Your task to perform on an android device: open app "The Home Depot" (install if not already installed) Image 0: 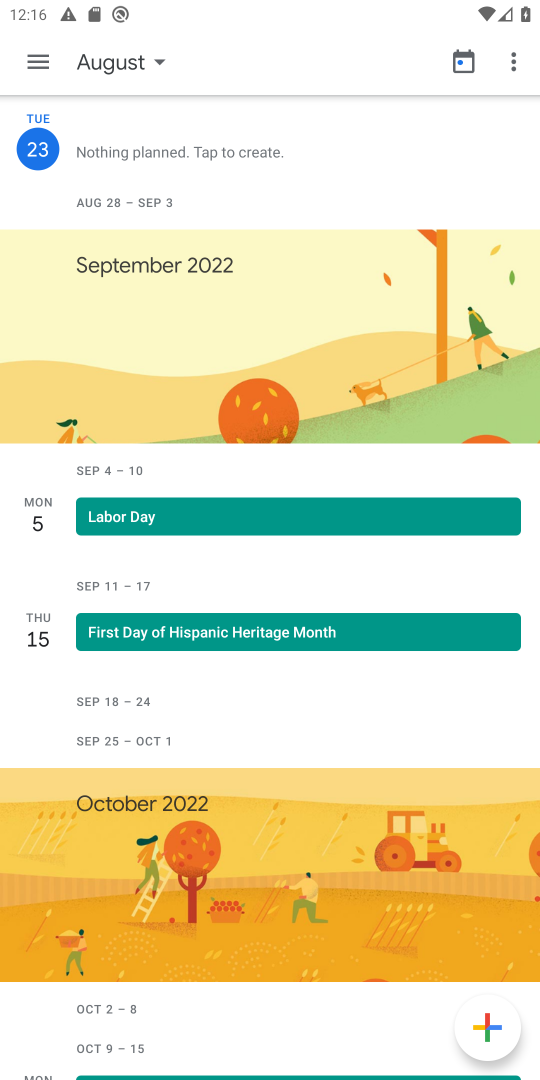
Step 0: press home button
Your task to perform on an android device: open app "The Home Depot" (install if not already installed) Image 1: 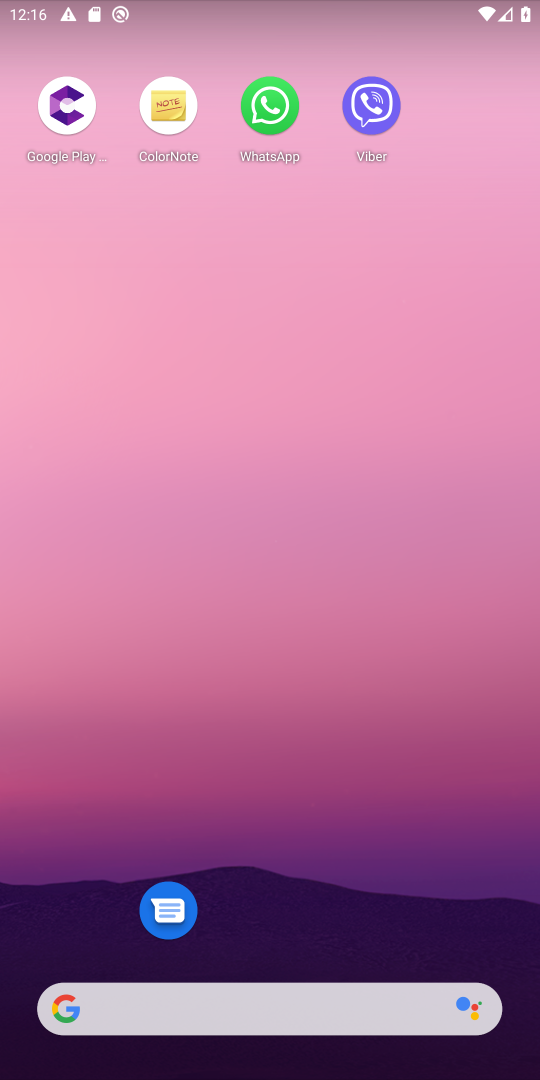
Step 1: drag from (170, 927) to (182, 41)
Your task to perform on an android device: open app "The Home Depot" (install if not already installed) Image 2: 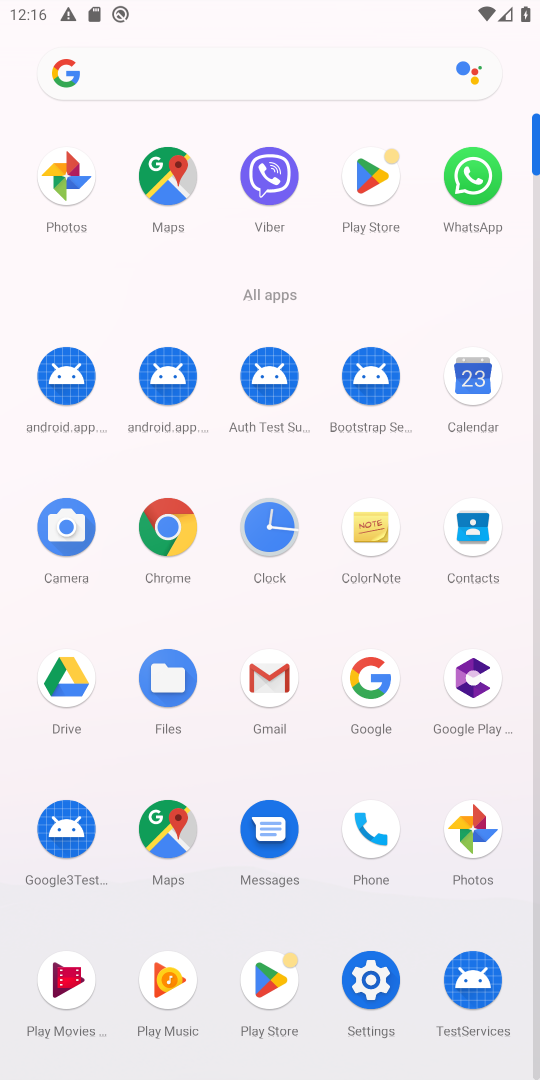
Step 2: click (360, 191)
Your task to perform on an android device: open app "The Home Depot" (install if not already installed) Image 3: 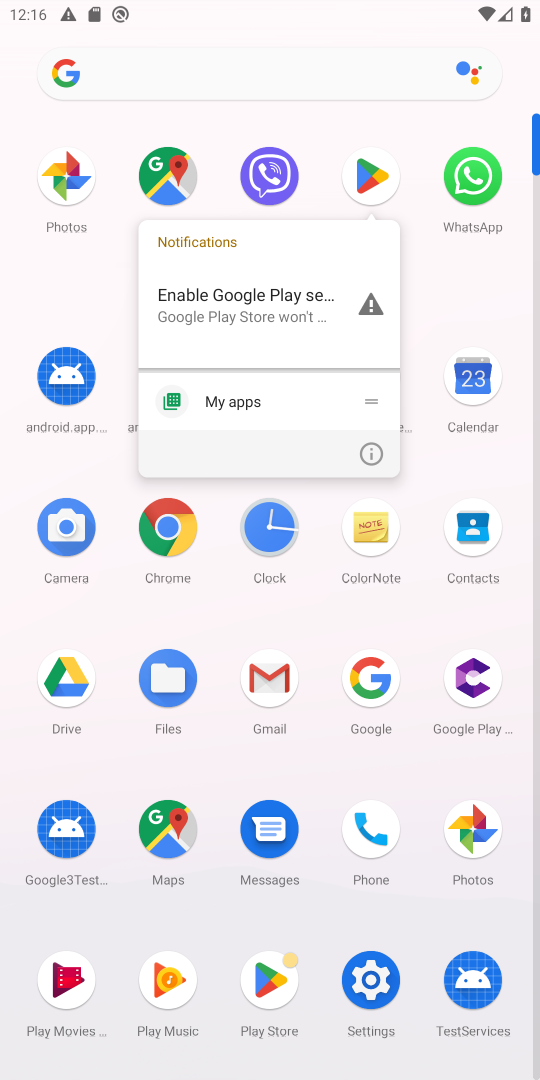
Step 3: click (360, 191)
Your task to perform on an android device: open app "The Home Depot" (install if not already installed) Image 4: 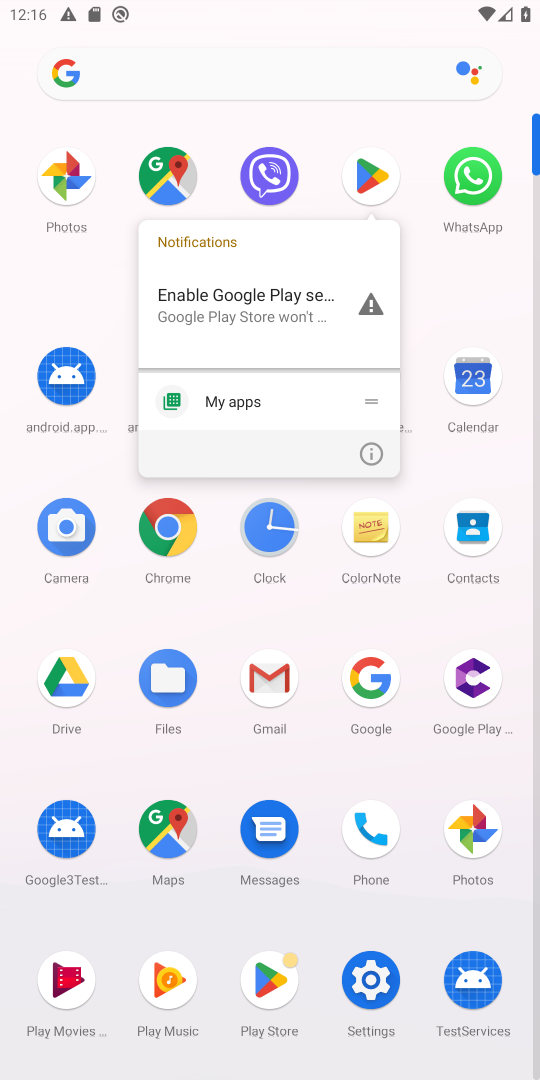
Step 4: click (376, 174)
Your task to perform on an android device: open app "The Home Depot" (install if not already installed) Image 5: 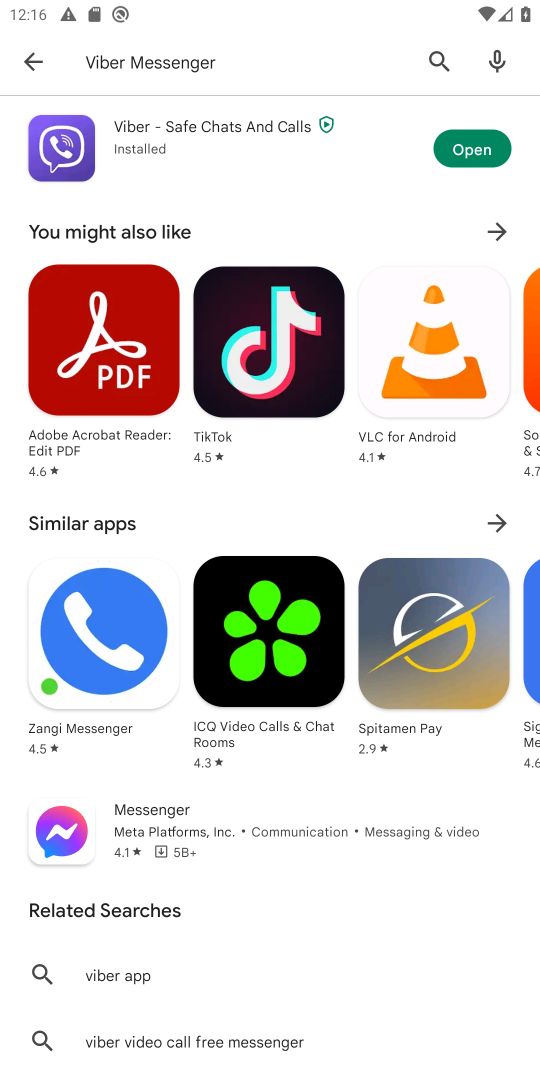
Step 5: press back button
Your task to perform on an android device: open app "The Home Depot" (install if not already installed) Image 6: 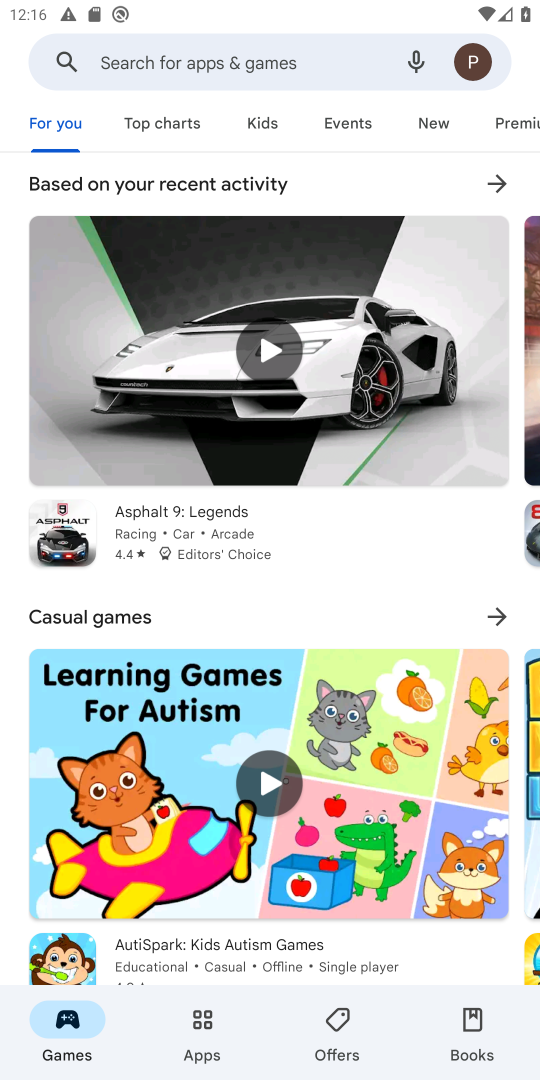
Step 6: click (224, 72)
Your task to perform on an android device: open app "The Home Depot" (install if not already installed) Image 7: 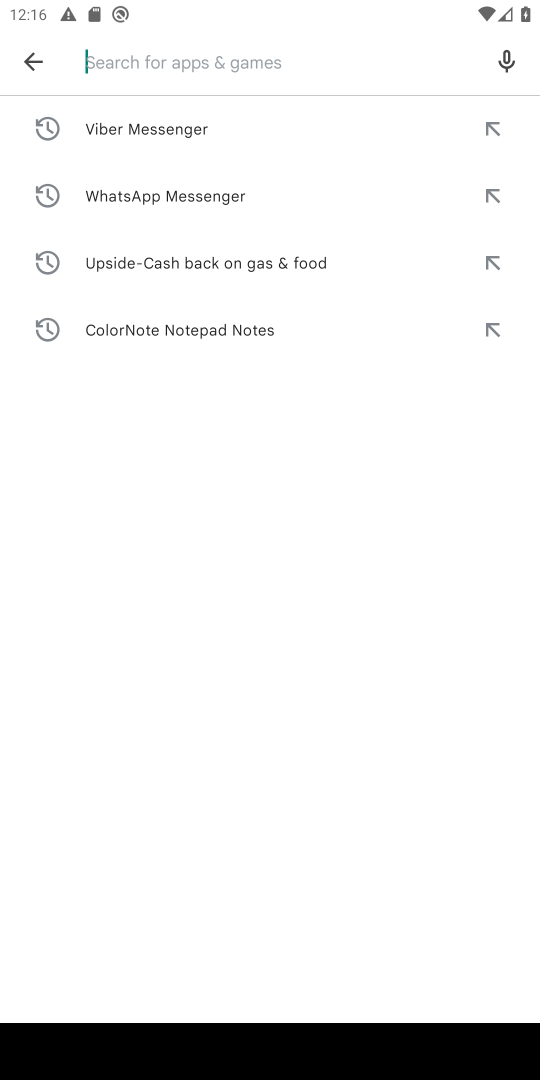
Step 7: type "The Home Depot"
Your task to perform on an android device: open app "The Home Depot" (install if not already installed) Image 8: 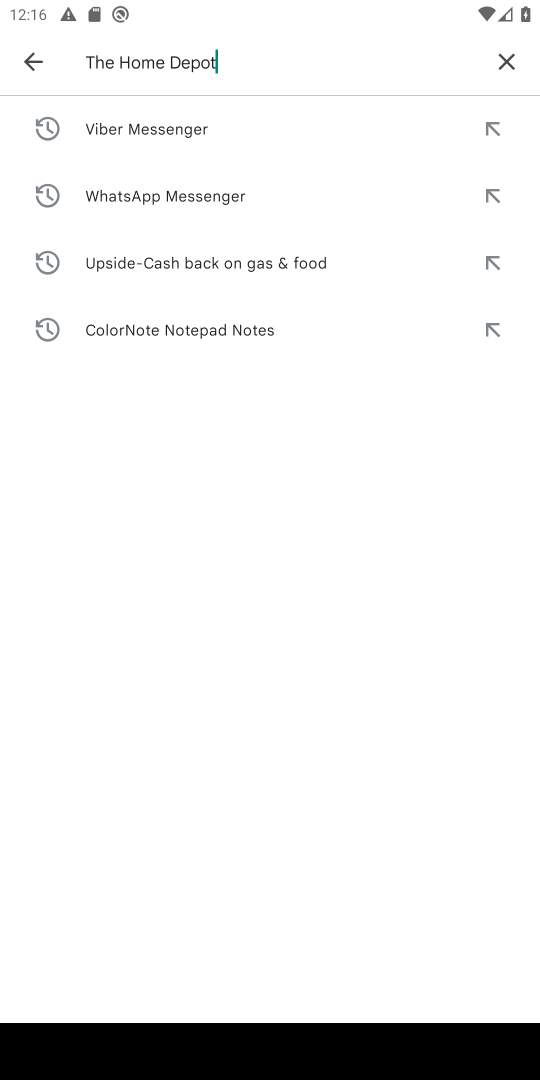
Step 8: press enter
Your task to perform on an android device: open app "The Home Depot" (install if not already installed) Image 9: 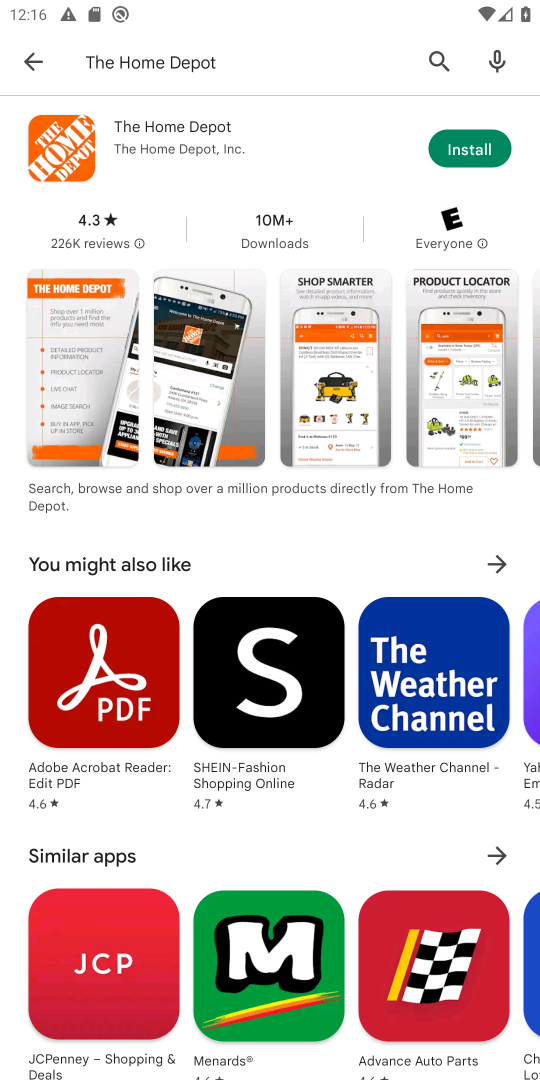
Step 9: click (462, 155)
Your task to perform on an android device: open app "The Home Depot" (install if not already installed) Image 10: 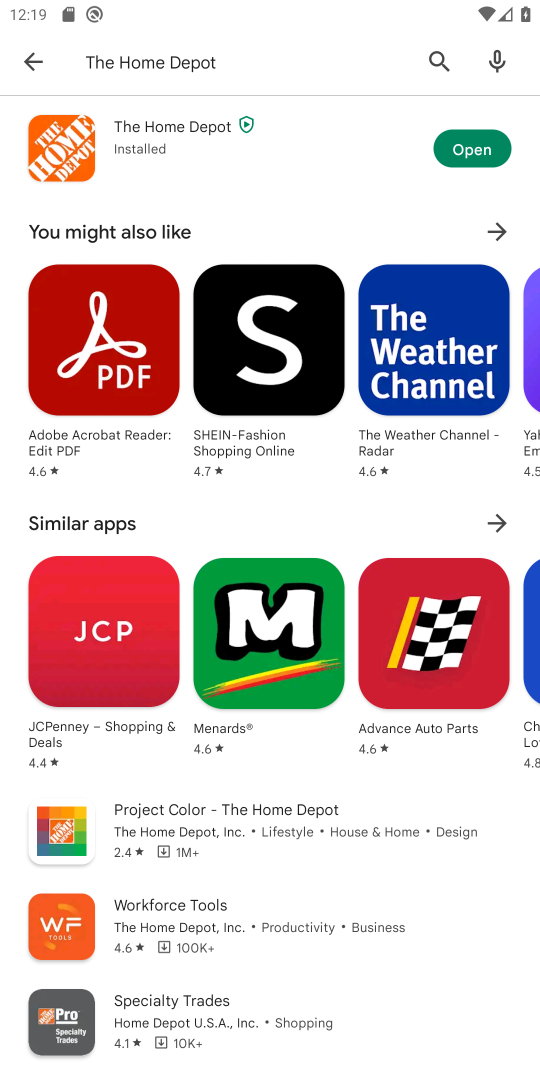
Step 10: click (478, 154)
Your task to perform on an android device: open app "The Home Depot" (install if not already installed) Image 11: 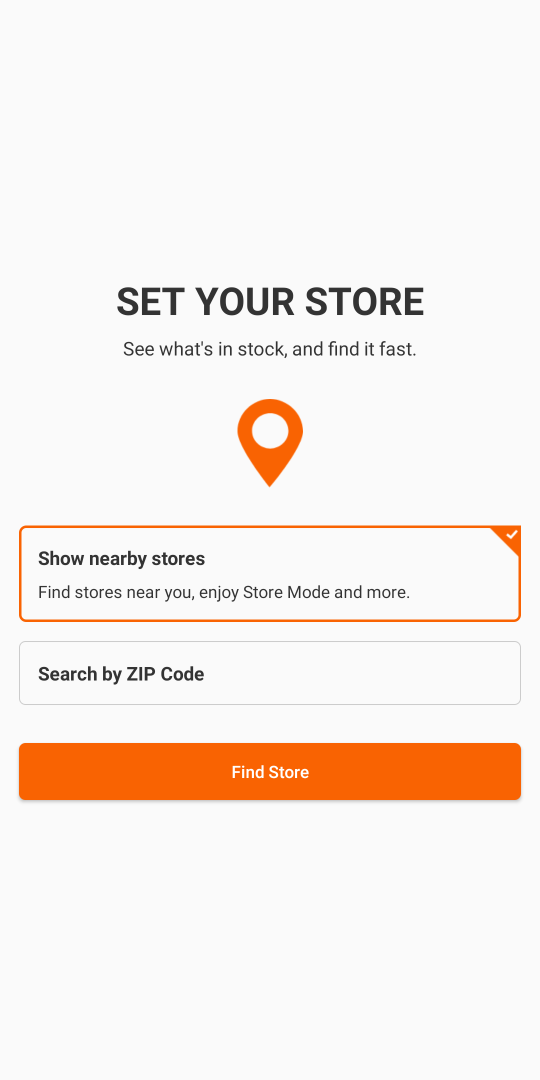
Step 11: press home button
Your task to perform on an android device: open app "The Home Depot" (install if not already installed) Image 12: 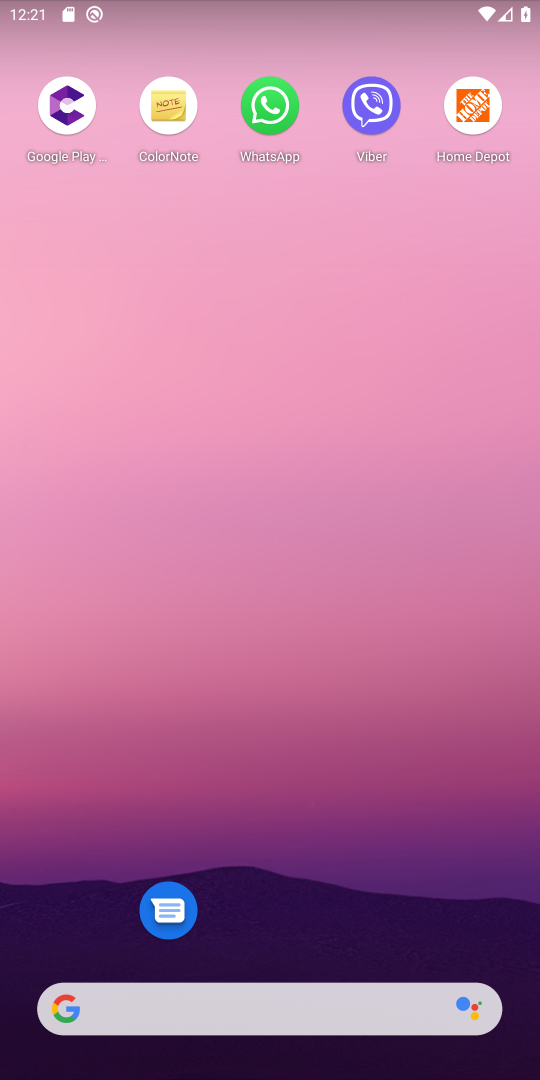
Step 12: drag from (351, 917) to (514, 56)
Your task to perform on an android device: open app "The Home Depot" (install if not already installed) Image 13: 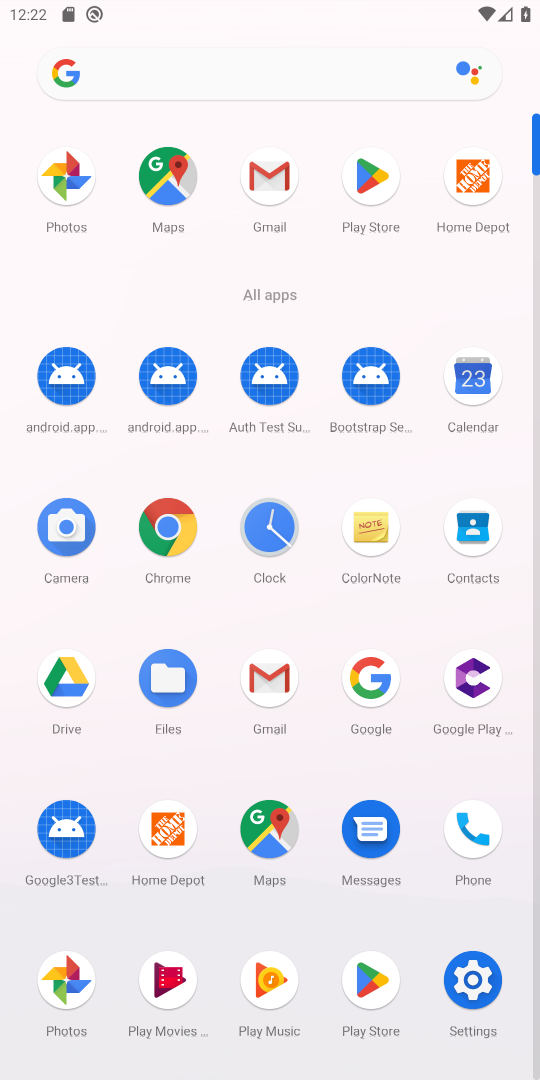
Step 13: click (388, 186)
Your task to perform on an android device: open app "The Home Depot" (install if not already installed) Image 14: 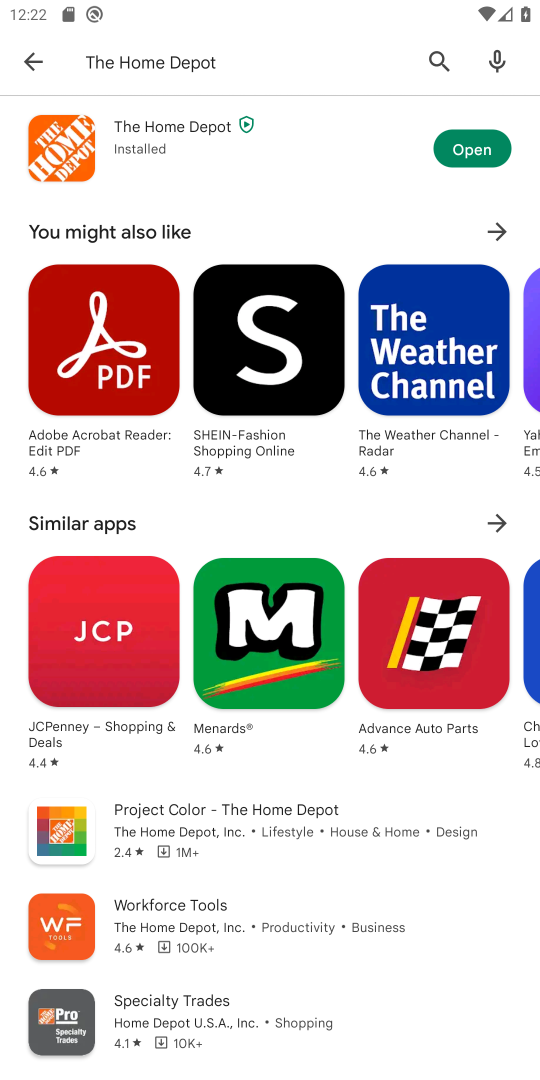
Step 14: task complete